Your task to perform on an android device: open app "Adobe Express: Graphic Design" (install if not already installed) and go to login screen Image 0: 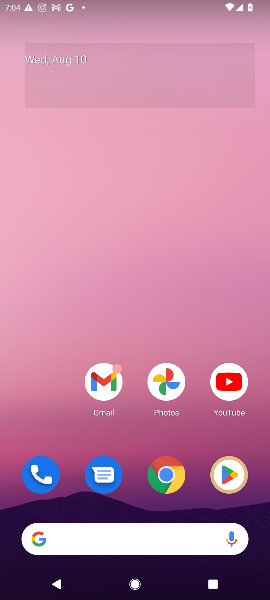
Step 0: drag from (105, 523) to (189, 128)
Your task to perform on an android device: open app "Adobe Express: Graphic Design" (install if not already installed) and go to login screen Image 1: 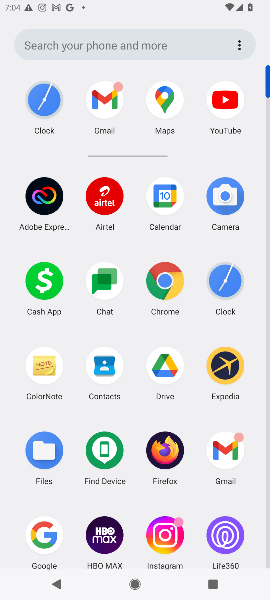
Step 1: drag from (129, 511) to (161, 219)
Your task to perform on an android device: open app "Adobe Express: Graphic Design" (install if not already installed) and go to login screen Image 2: 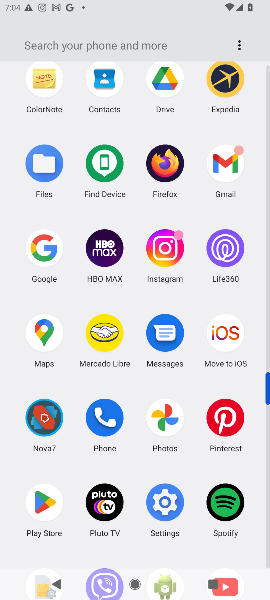
Step 2: drag from (130, 454) to (129, 305)
Your task to perform on an android device: open app "Adobe Express: Graphic Design" (install if not already installed) and go to login screen Image 3: 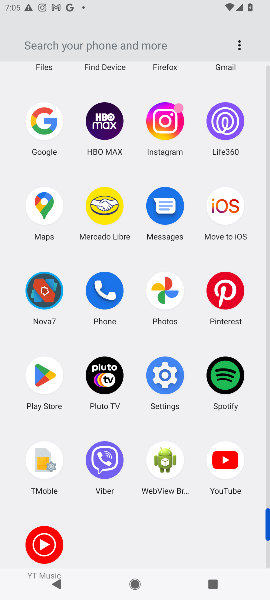
Step 3: drag from (201, 137) to (211, 402)
Your task to perform on an android device: open app "Adobe Express: Graphic Design" (install if not already installed) and go to login screen Image 4: 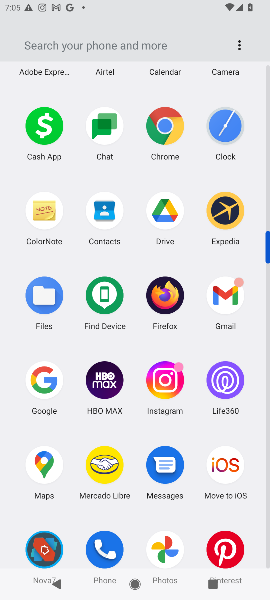
Step 4: drag from (141, 164) to (147, 401)
Your task to perform on an android device: open app "Adobe Express: Graphic Design" (install if not already installed) and go to login screen Image 5: 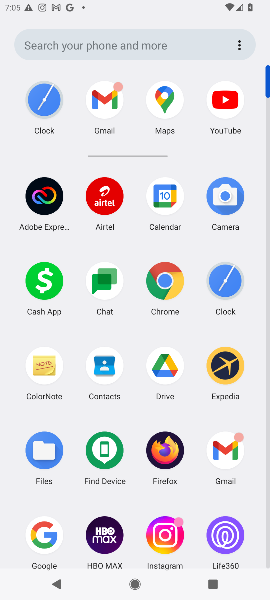
Step 5: click (42, 193)
Your task to perform on an android device: open app "Adobe Express: Graphic Design" (install if not already installed) and go to login screen Image 6: 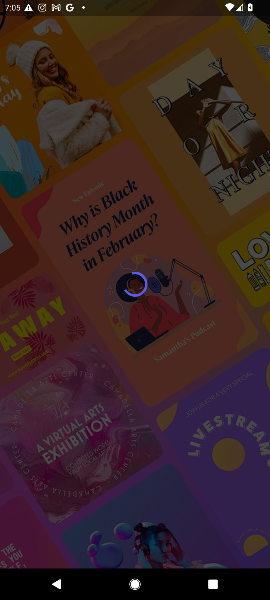
Step 6: task complete